Your task to perform on an android device: open device folders in google photos Image 0: 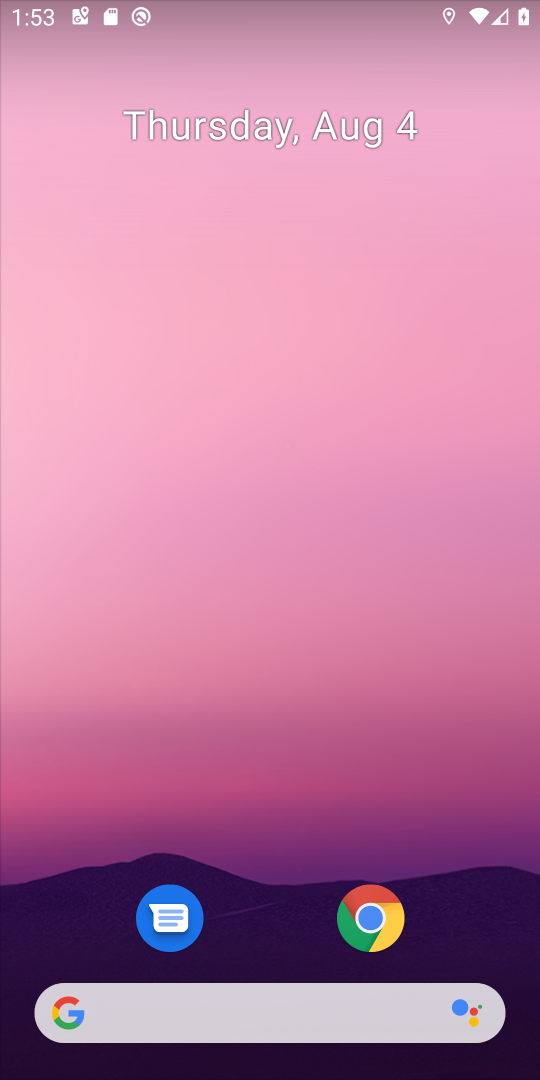
Step 0: drag from (290, 839) to (302, 403)
Your task to perform on an android device: open device folders in google photos Image 1: 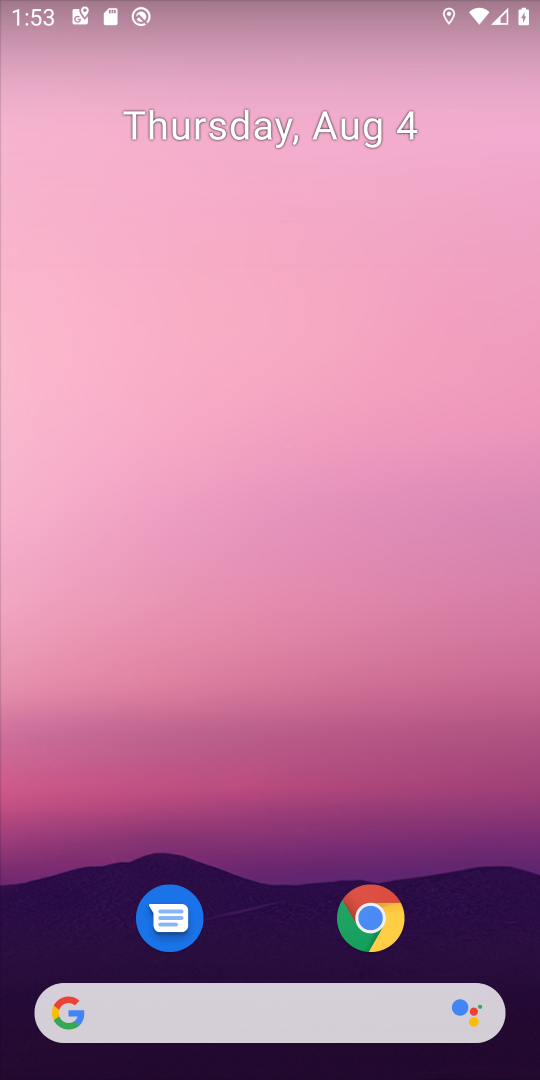
Step 1: drag from (309, 910) to (282, 294)
Your task to perform on an android device: open device folders in google photos Image 2: 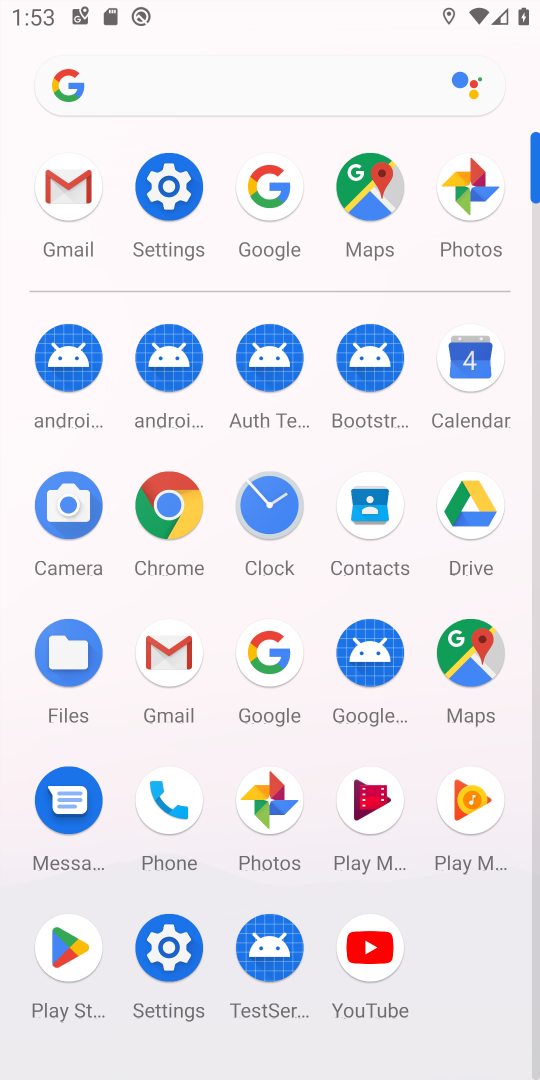
Step 2: click (460, 181)
Your task to perform on an android device: open device folders in google photos Image 3: 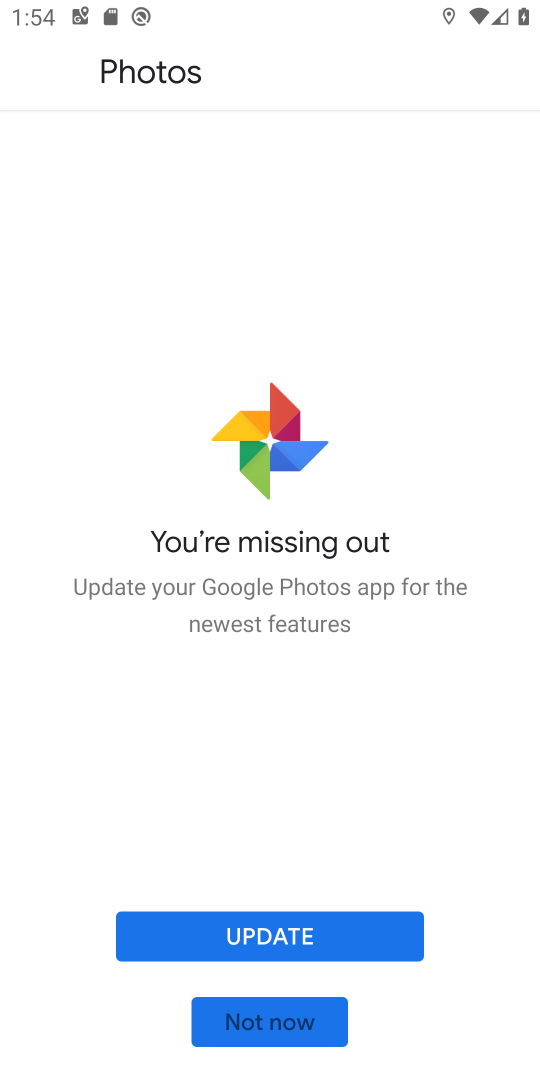
Step 3: click (265, 1009)
Your task to perform on an android device: open device folders in google photos Image 4: 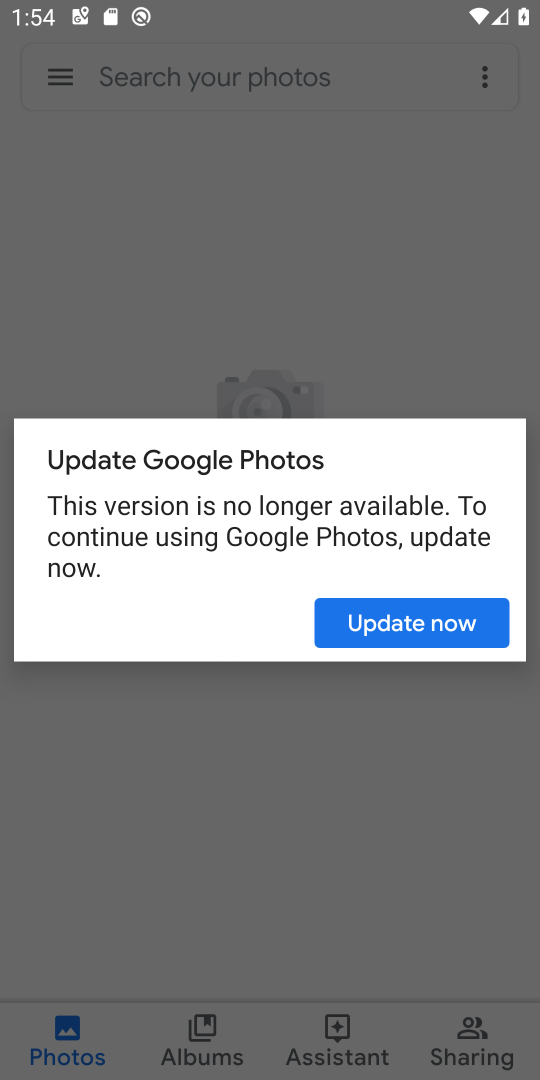
Step 4: click (380, 618)
Your task to perform on an android device: open device folders in google photos Image 5: 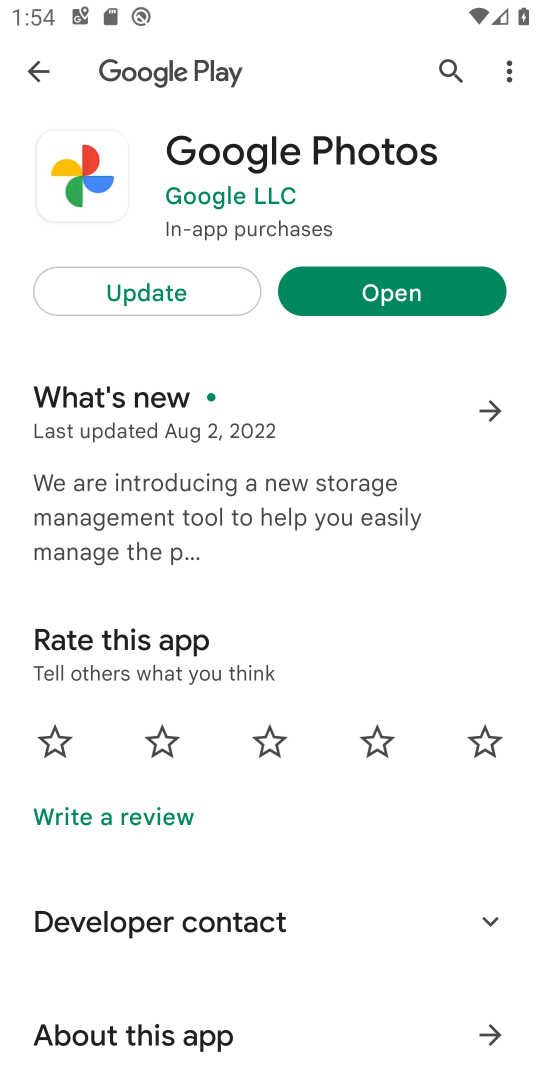
Step 5: click (400, 300)
Your task to perform on an android device: open device folders in google photos Image 6: 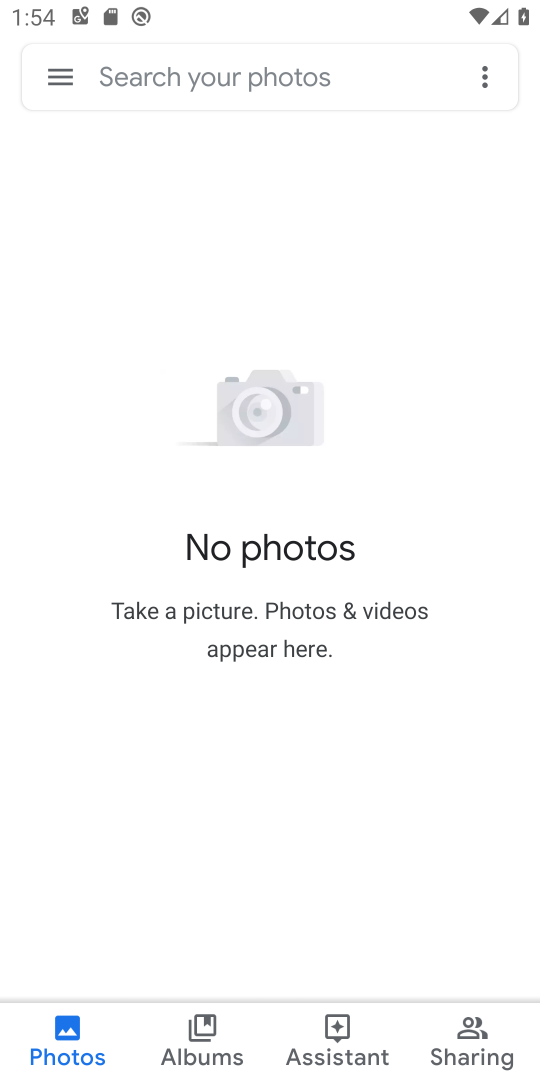
Step 6: click (48, 77)
Your task to perform on an android device: open device folders in google photos Image 7: 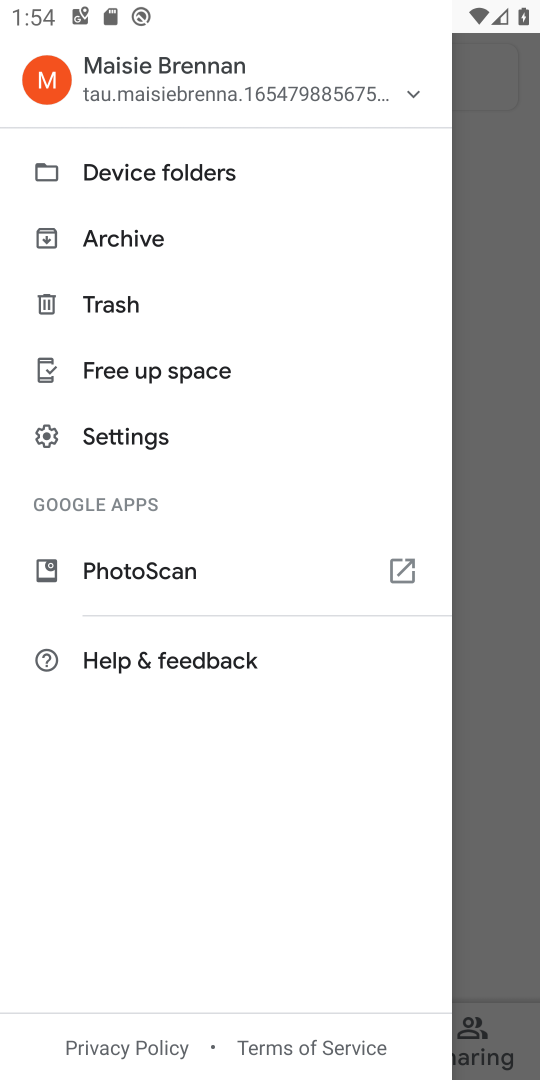
Step 7: click (163, 176)
Your task to perform on an android device: open device folders in google photos Image 8: 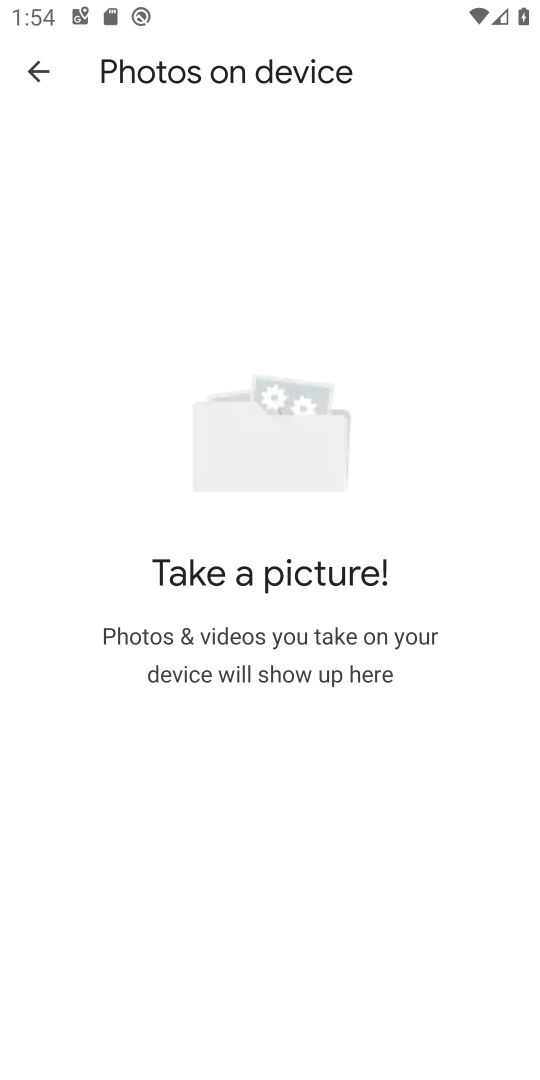
Step 8: task complete